Your task to perform on an android device: turn off smart reply in the gmail app Image 0: 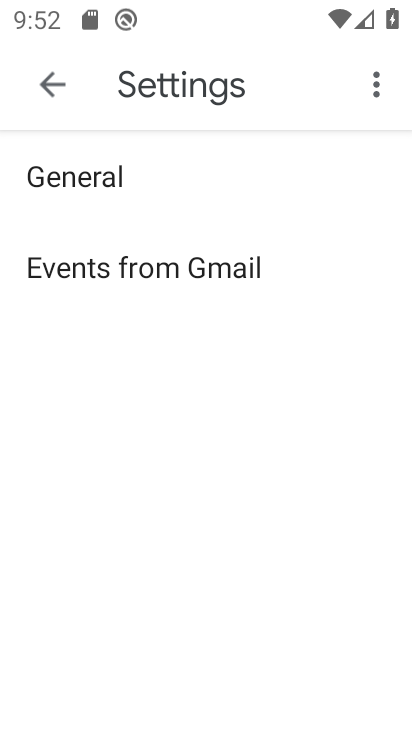
Step 0: press home button
Your task to perform on an android device: turn off smart reply in the gmail app Image 1: 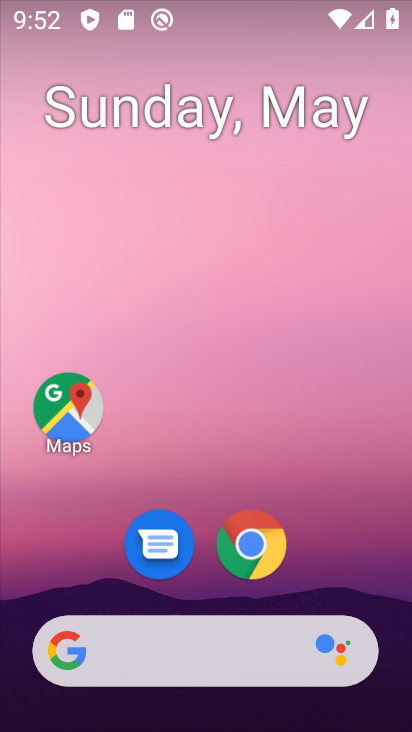
Step 1: drag from (341, 433) to (358, 63)
Your task to perform on an android device: turn off smart reply in the gmail app Image 2: 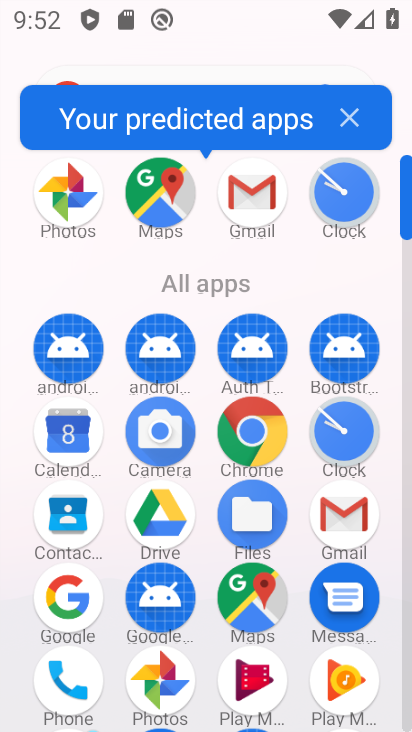
Step 2: click (255, 213)
Your task to perform on an android device: turn off smart reply in the gmail app Image 3: 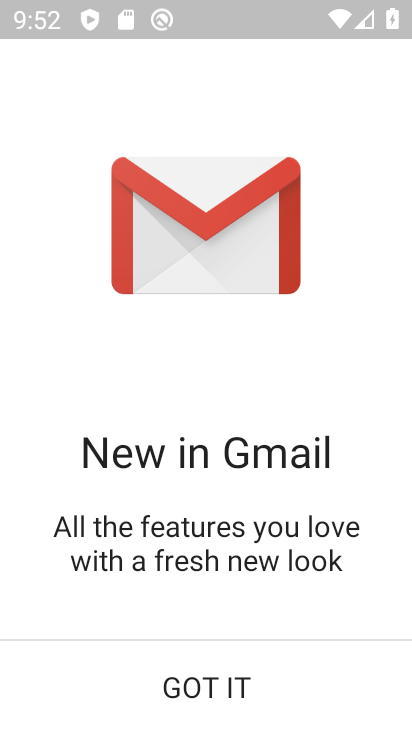
Step 3: click (195, 695)
Your task to perform on an android device: turn off smart reply in the gmail app Image 4: 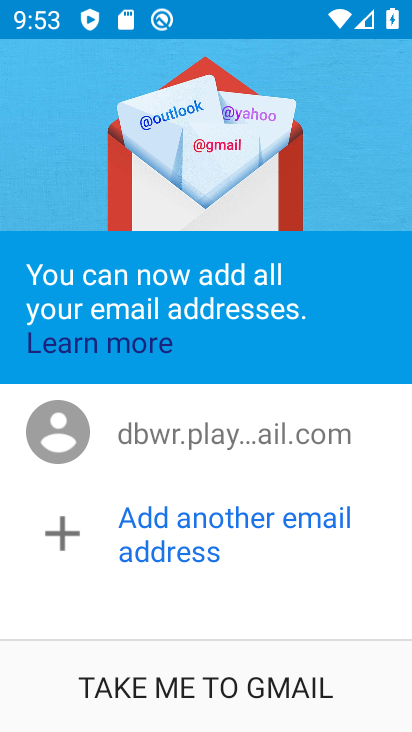
Step 4: click (197, 698)
Your task to perform on an android device: turn off smart reply in the gmail app Image 5: 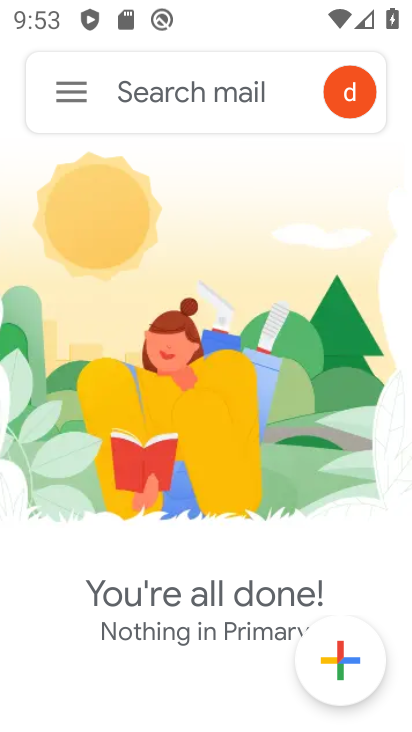
Step 5: click (66, 99)
Your task to perform on an android device: turn off smart reply in the gmail app Image 6: 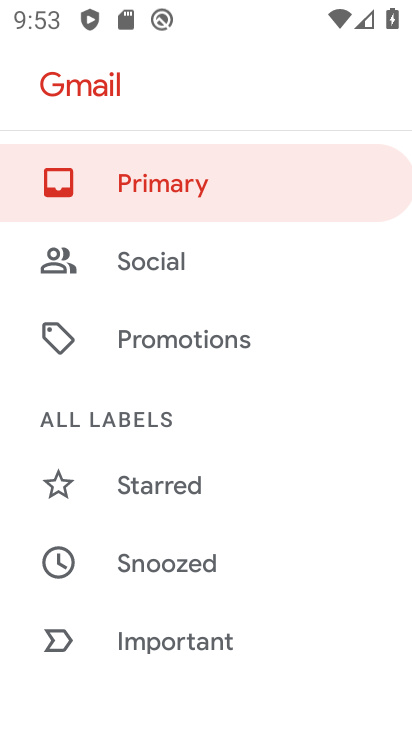
Step 6: drag from (174, 580) to (237, 83)
Your task to perform on an android device: turn off smart reply in the gmail app Image 7: 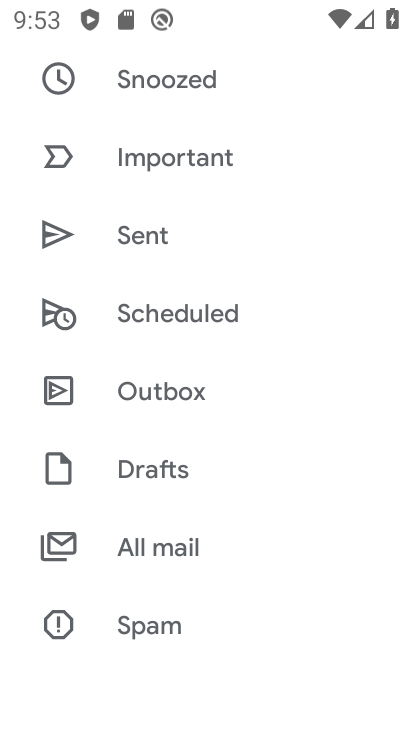
Step 7: drag from (228, 593) to (254, 177)
Your task to perform on an android device: turn off smart reply in the gmail app Image 8: 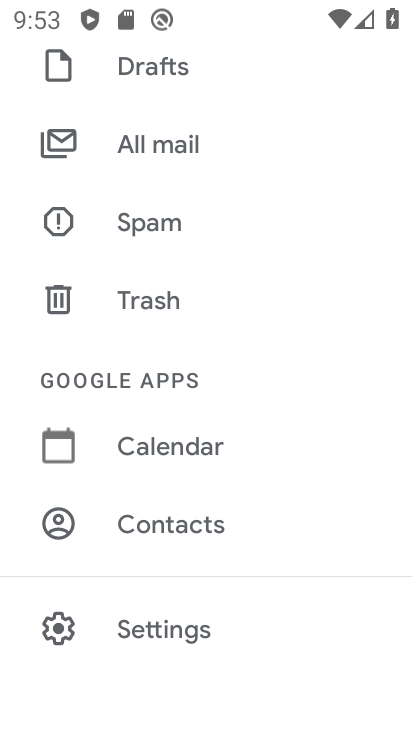
Step 8: click (194, 635)
Your task to perform on an android device: turn off smart reply in the gmail app Image 9: 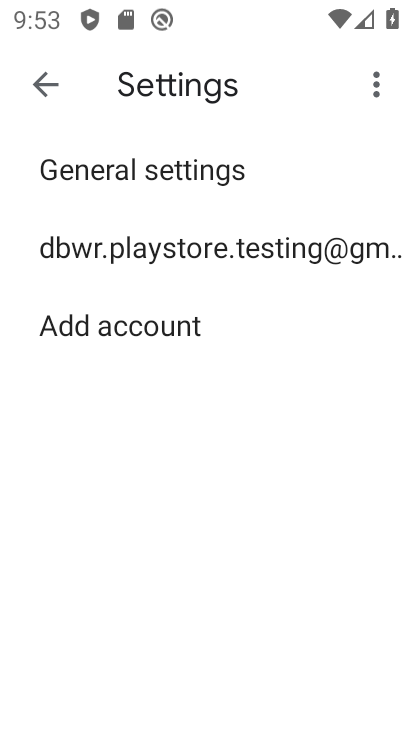
Step 9: click (200, 266)
Your task to perform on an android device: turn off smart reply in the gmail app Image 10: 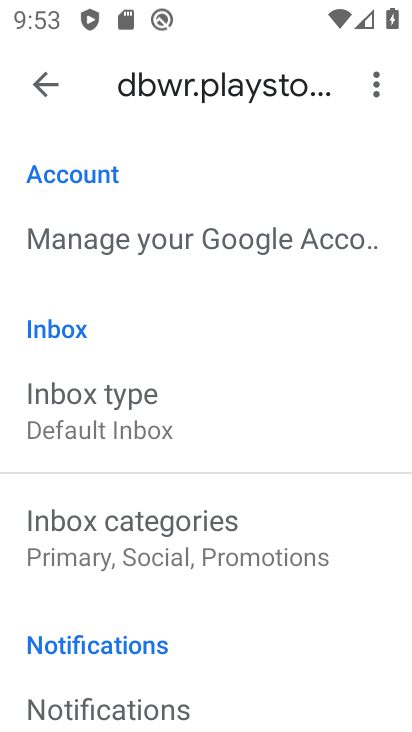
Step 10: drag from (248, 661) to (267, 231)
Your task to perform on an android device: turn off smart reply in the gmail app Image 11: 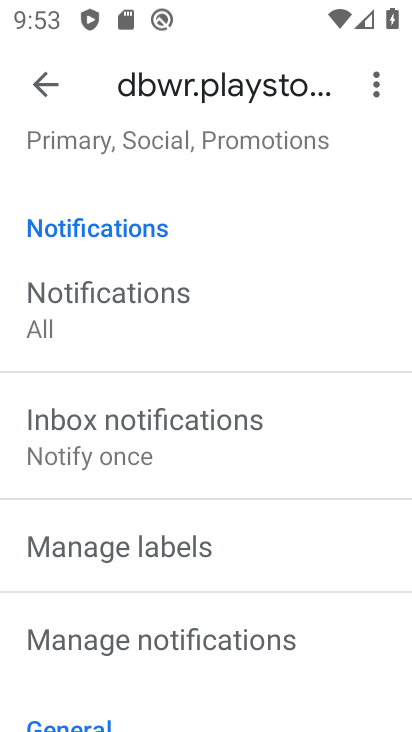
Step 11: drag from (222, 621) to (276, 151)
Your task to perform on an android device: turn off smart reply in the gmail app Image 12: 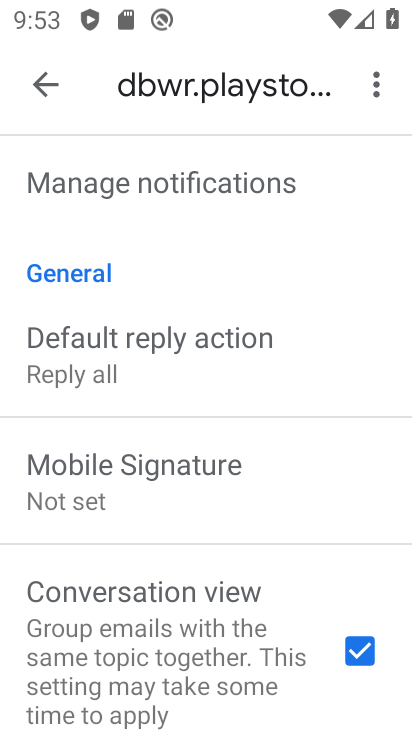
Step 12: drag from (235, 622) to (297, 218)
Your task to perform on an android device: turn off smart reply in the gmail app Image 13: 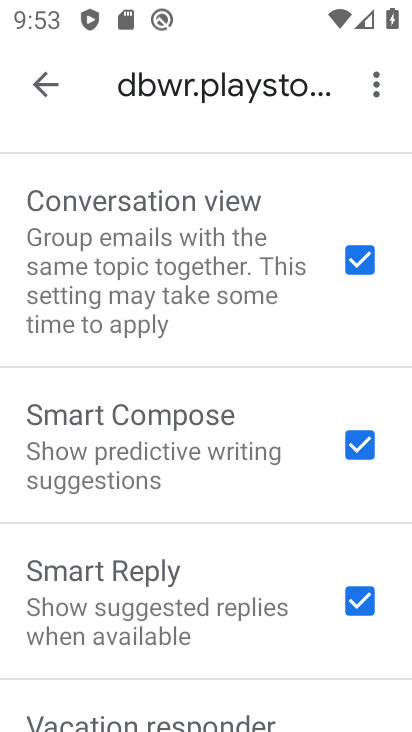
Step 13: drag from (210, 641) to (223, 289)
Your task to perform on an android device: turn off smart reply in the gmail app Image 14: 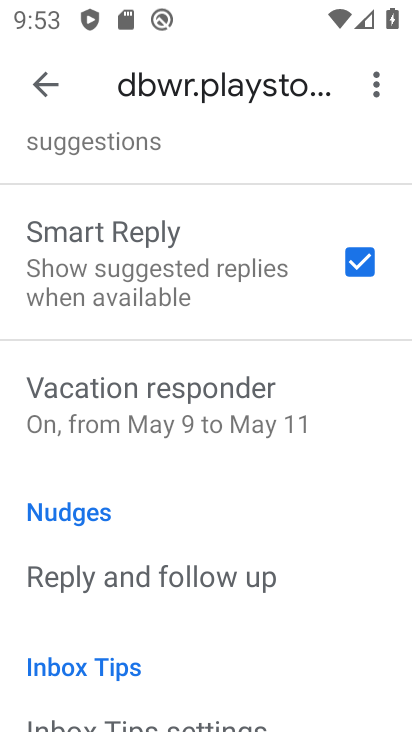
Step 14: click (342, 260)
Your task to perform on an android device: turn off smart reply in the gmail app Image 15: 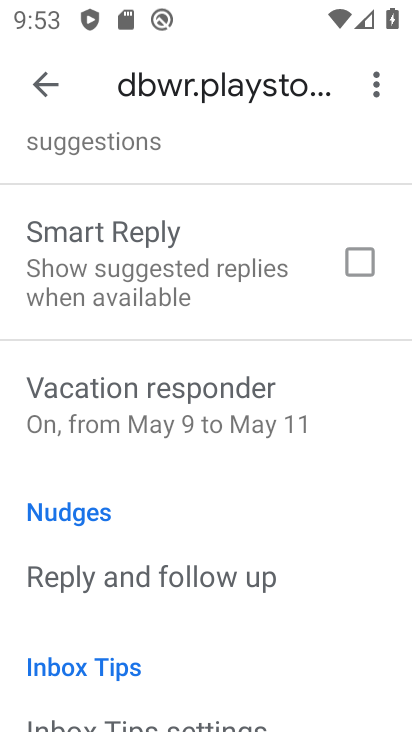
Step 15: task complete